Your task to perform on an android device: Open Yahoo.com Image 0: 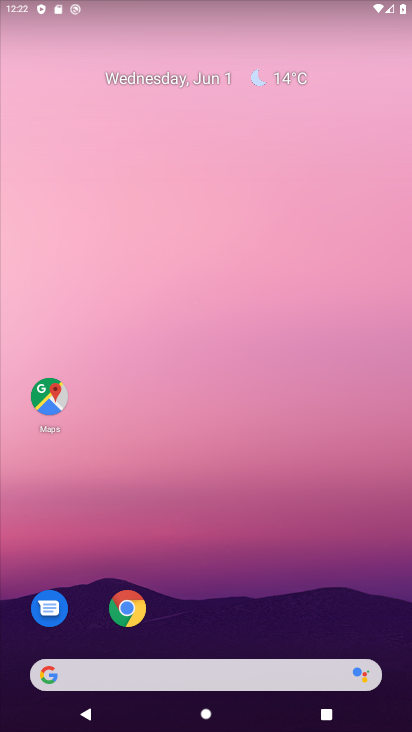
Step 0: click (125, 619)
Your task to perform on an android device: Open Yahoo.com Image 1: 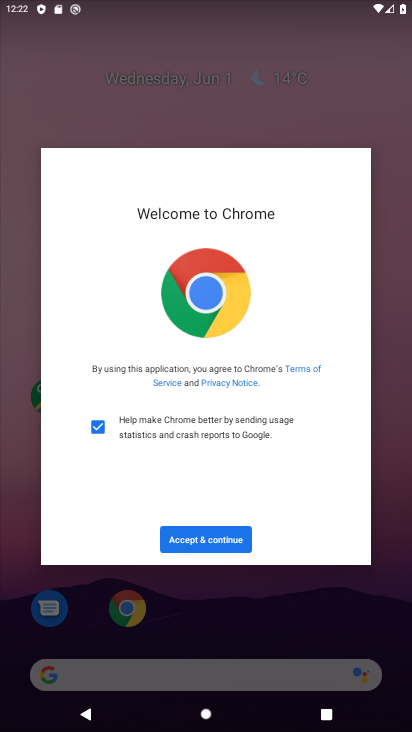
Step 1: click (219, 535)
Your task to perform on an android device: Open Yahoo.com Image 2: 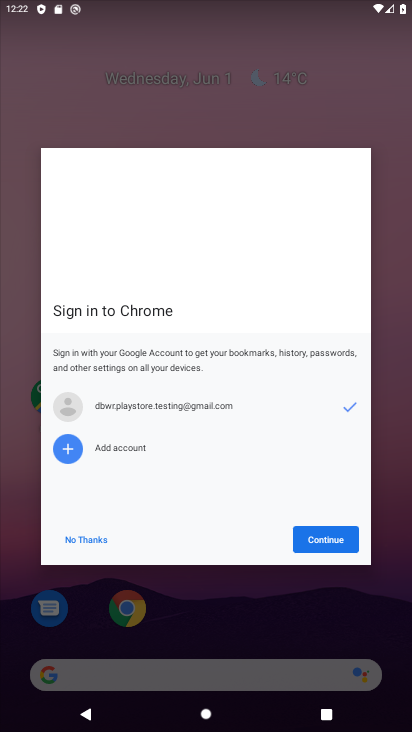
Step 2: click (340, 535)
Your task to perform on an android device: Open Yahoo.com Image 3: 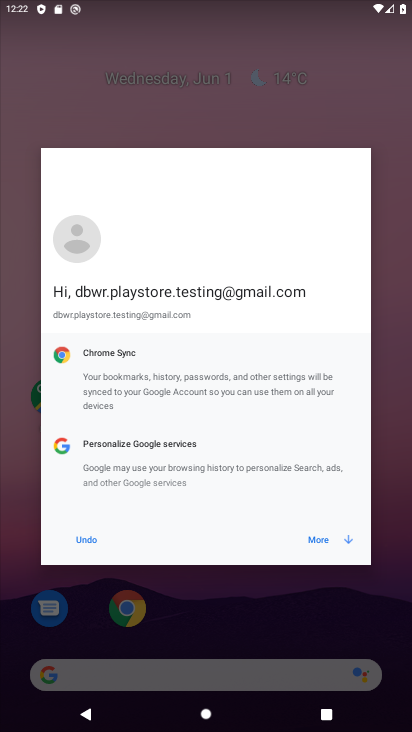
Step 3: click (330, 543)
Your task to perform on an android device: Open Yahoo.com Image 4: 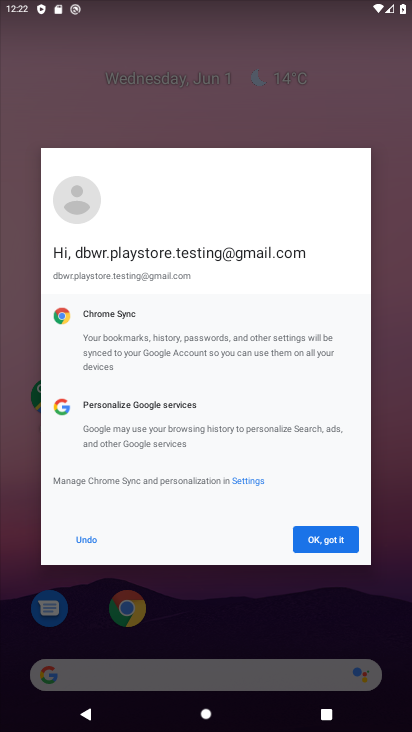
Step 4: click (328, 541)
Your task to perform on an android device: Open Yahoo.com Image 5: 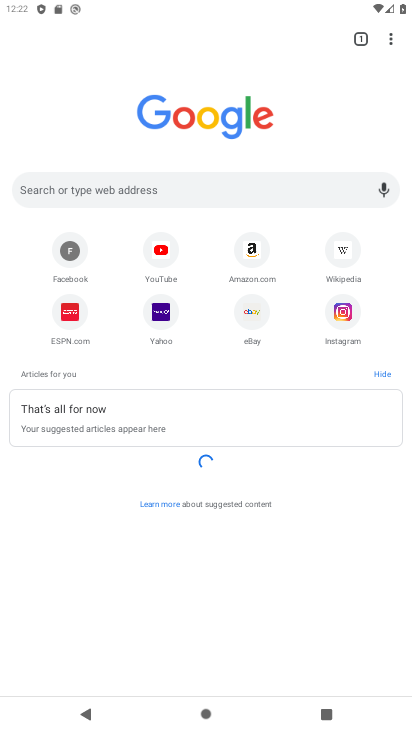
Step 5: click (165, 326)
Your task to perform on an android device: Open Yahoo.com Image 6: 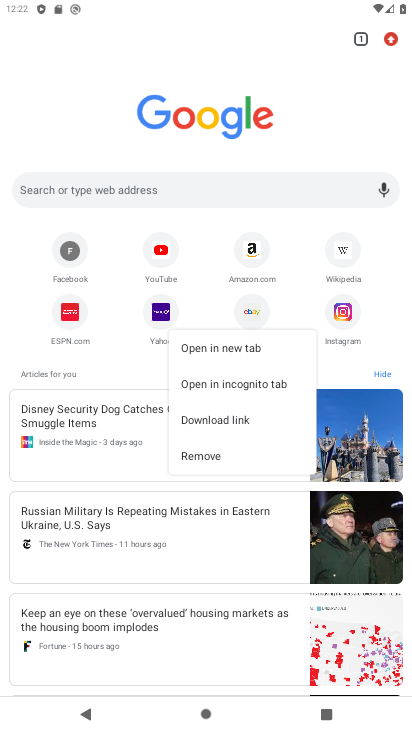
Step 6: click (158, 321)
Your task to perform on an android device: Open Yahoo.com Image 7: 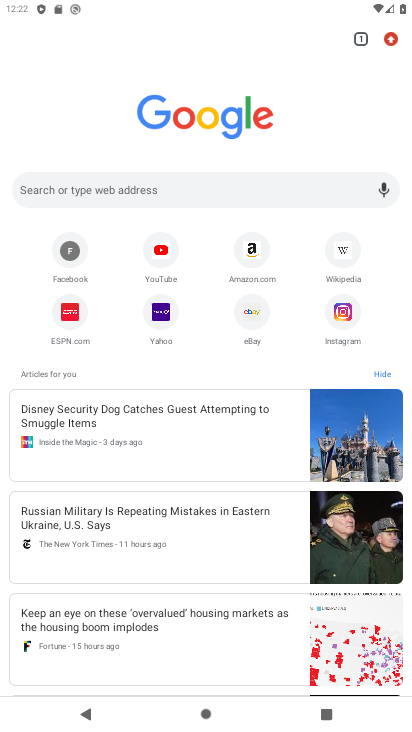
Step 7: click (162, 313)
Your task to perform on an android device: Open Yahoo.com Image 8: 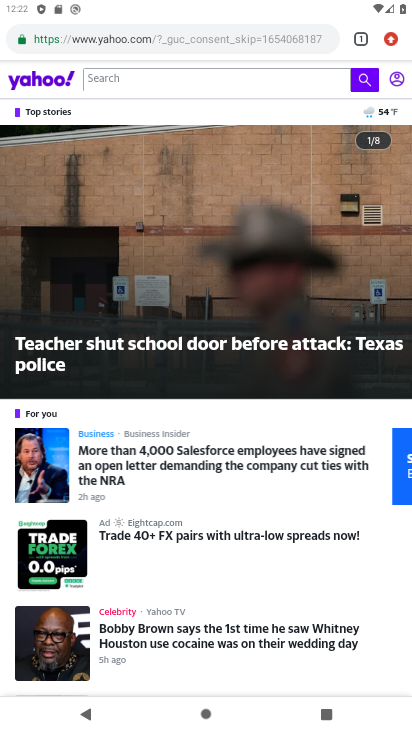
Step 8: task complete